Your task to perform on an android device: open sync settings in chrome Image 0: 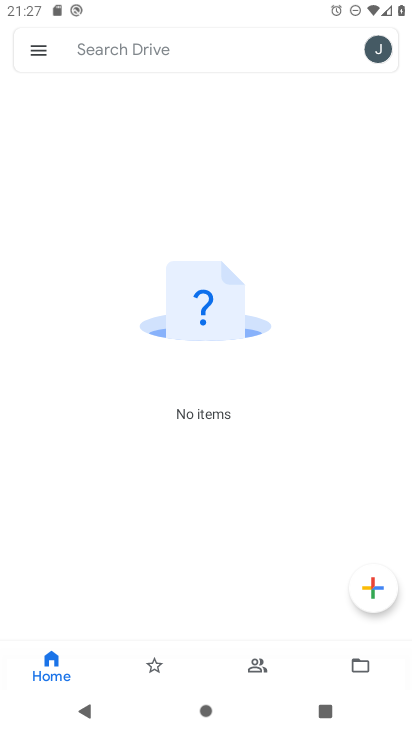
Step 0: press home button
Your task to perform on an android device: open sync settings in chrome Image 1: 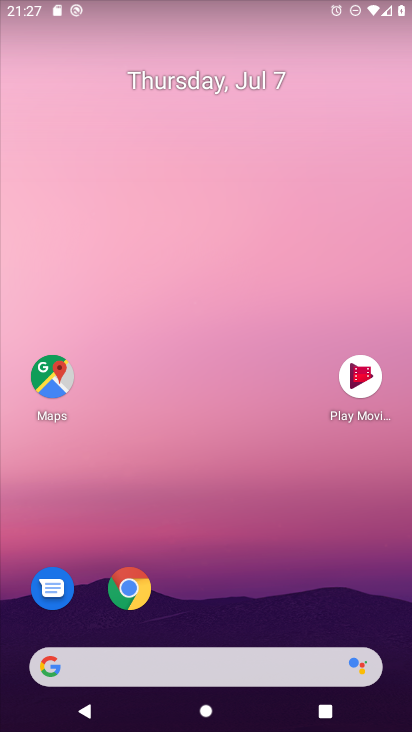
Step 1: drag from (151, 621) to (213, 178)
Your task to perform on an android device: open sync settings in chrome Image 2: 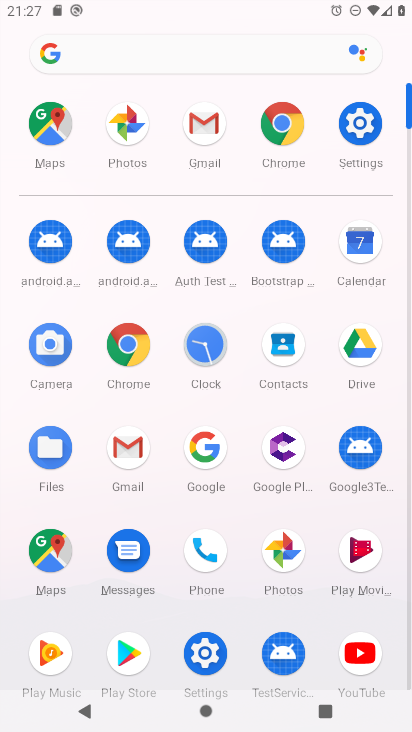
Step 2: click (281, 114)
Your task to perform on an android device: open sync settings in chrome Image 3: 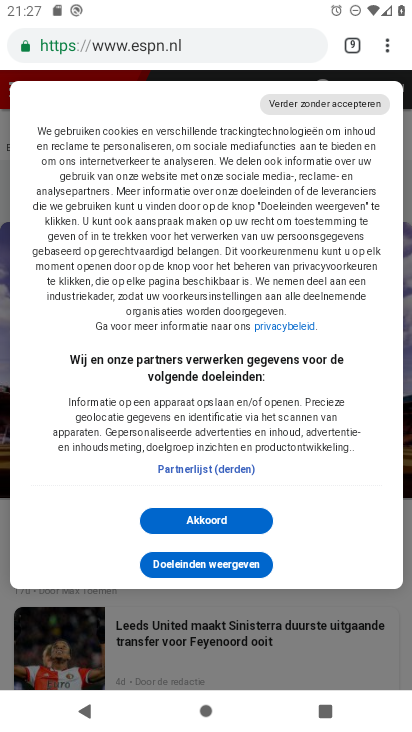
Step 3: click (406, 35)
Your task to perform on an android device: open sync settings in chrome Image 4: 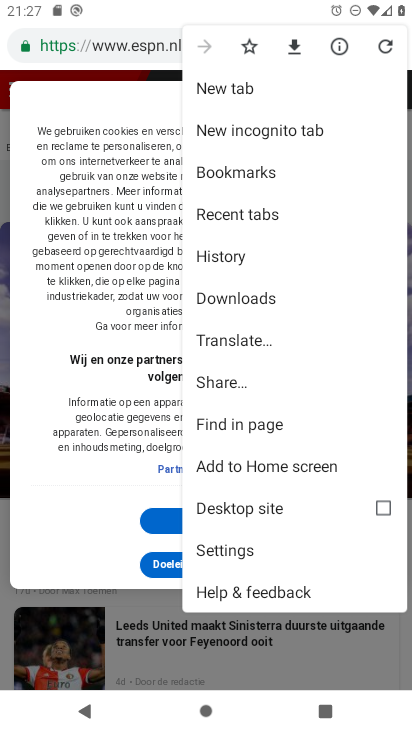
Step 4: click (247, 555)
Your task to perform on an android device: open sync settings in chrome Image 5: 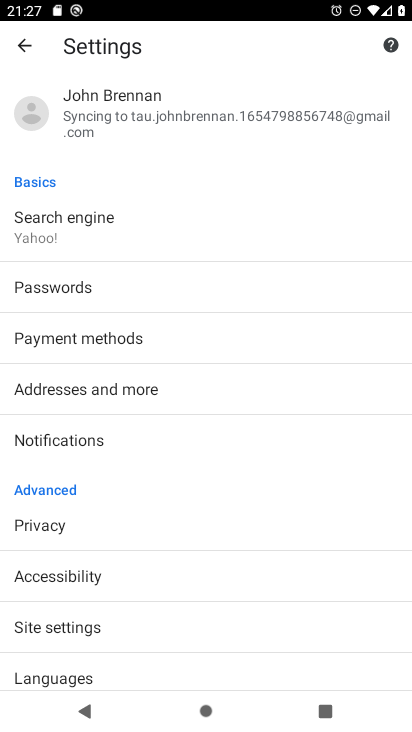
Step 5: click (112, 109)
Your task to perform on an android device: open sync settings in chrome Image 6: 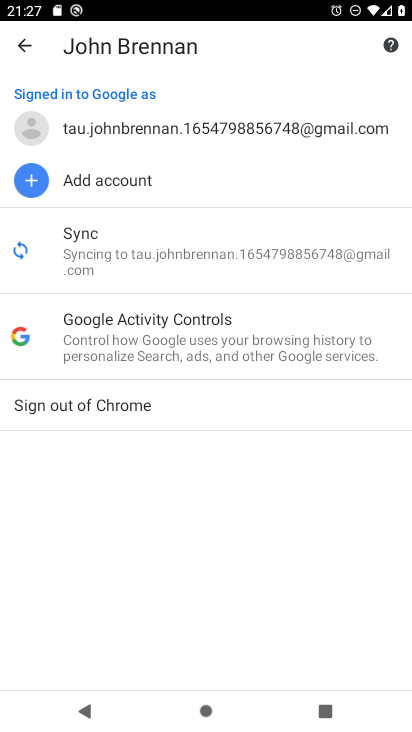
Step 6: click (112, 245)
Your task to perform on an android device: open sync settings in chrome Image 7: 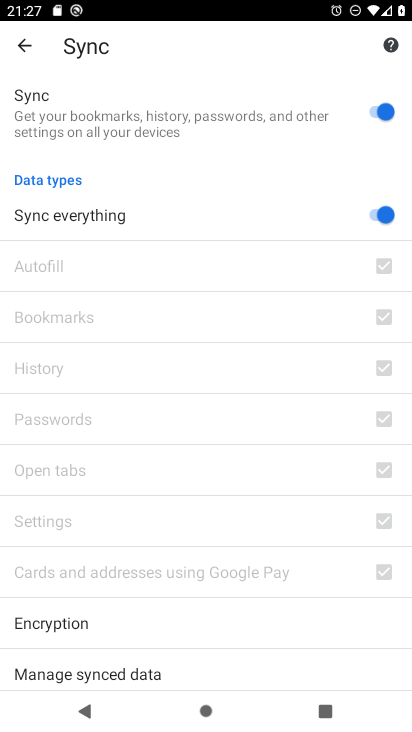
Step 7: task complete